Your task to perform on an android device: Search for the best rated 150-piece drill bit set on Aliexpress. Image 0: 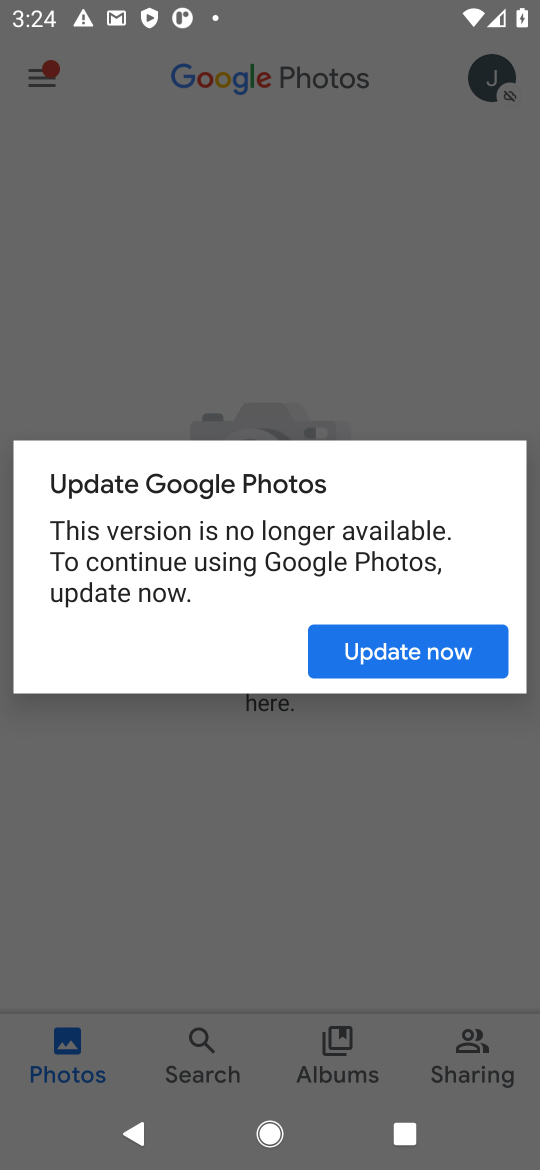
Step 0: press home button
Your task to perform on an android device: Search for the best rated 150-piece drill bit set on Aliexpress. Image 1: 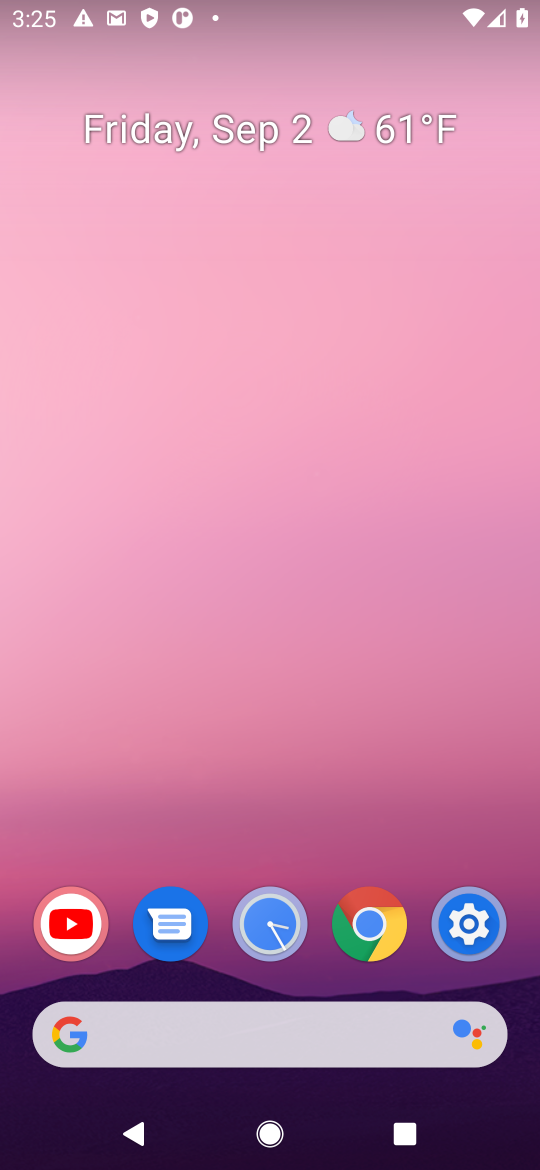
Step 1: click (382, 1047)
Your task to perform on an android device: Search for the best rated 150-piece drill bit set on Aliexpress. Image 2: 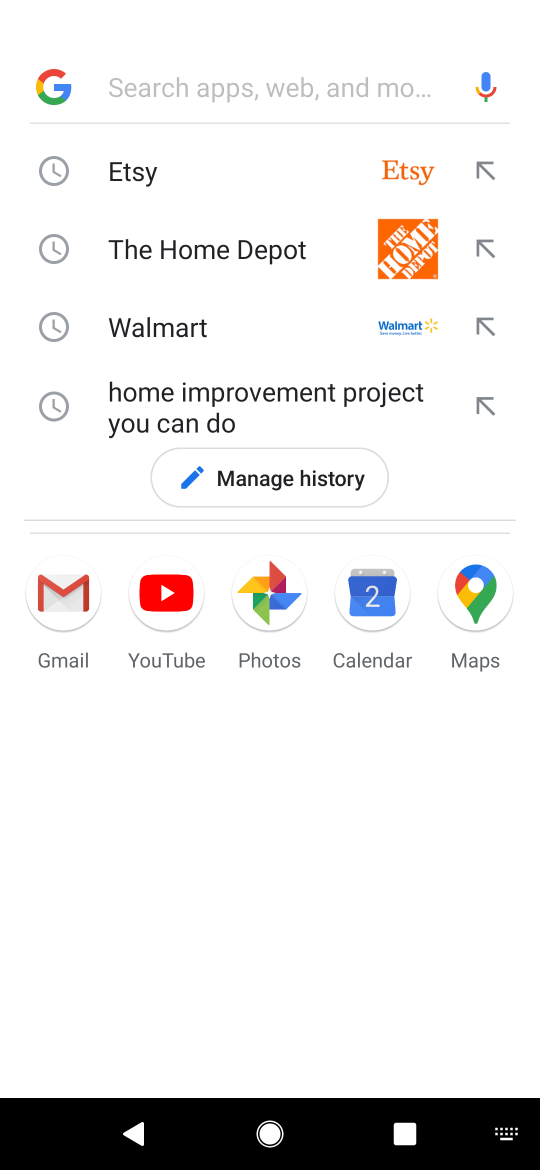
Step 2: press enter
Your task to perform on an android device: Search for the best rated 150-piece drill bit set on Aliexpress. Image 3: 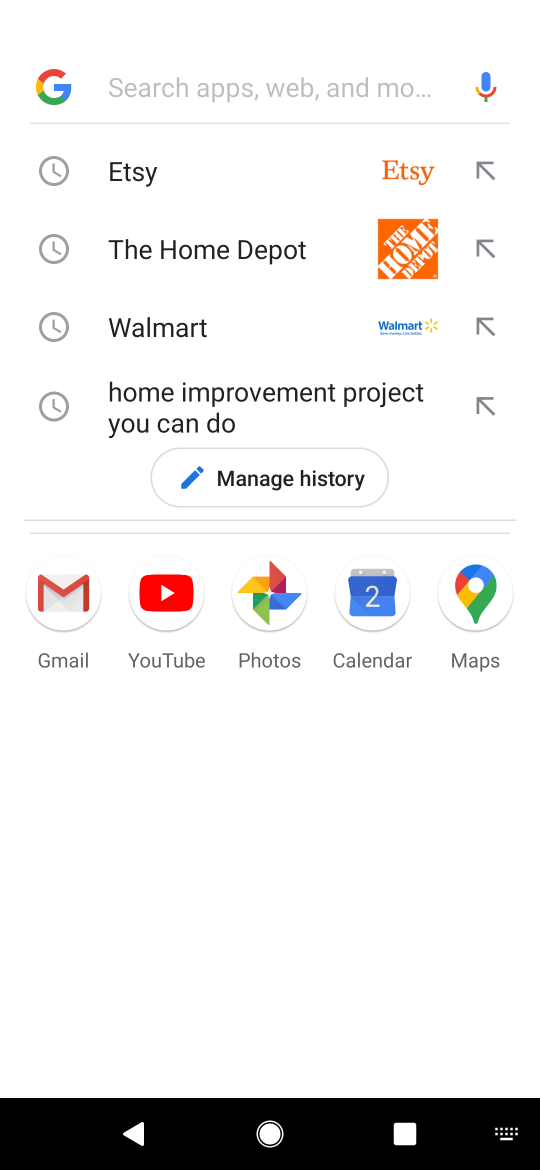
Step 3: type "aliexpress"
Your task to perform on an android device: Search for the best rated 150-piece drill bit set on Aliexpress. Image 4: 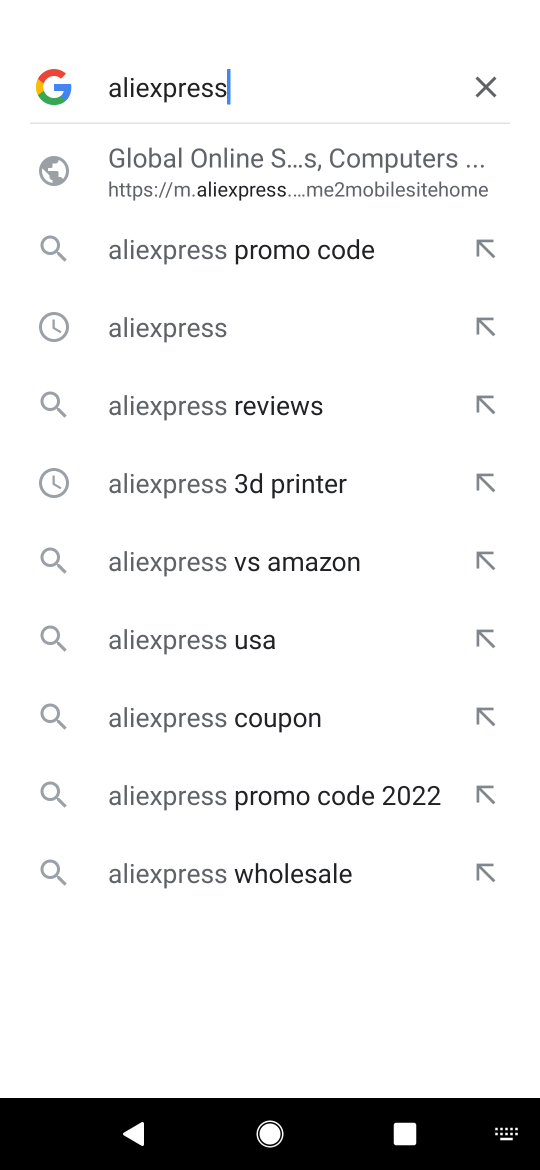
Step 4: click (266, 178)
Your task to perform on an android device: Search for the best rated 150-piece drill bit set on Aliexpress. Image 5: 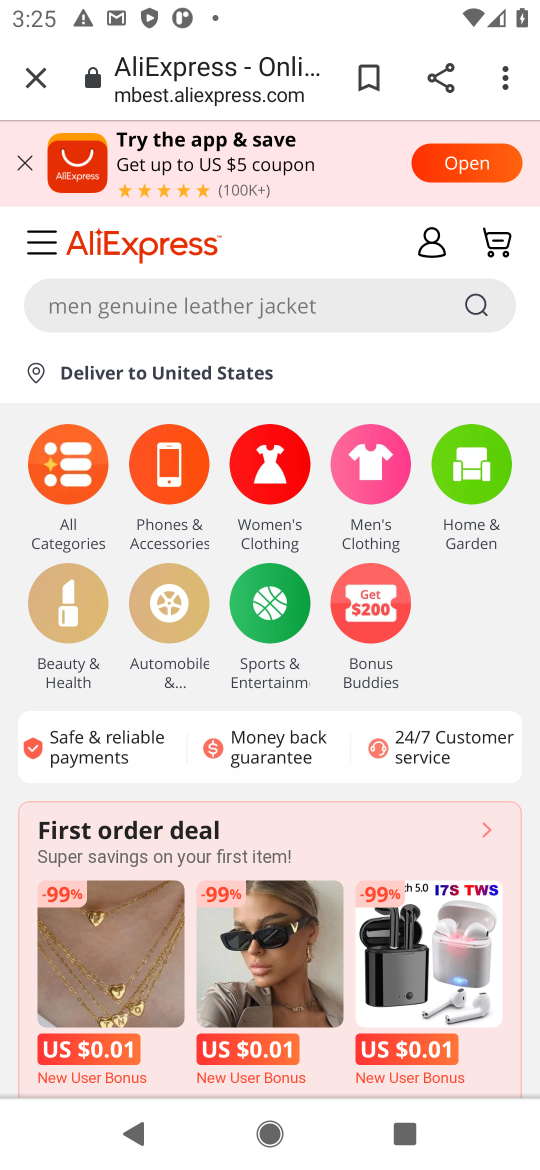
Step 5: click (282, 300)
Your task to perform on an android device: Search for the best rated 150-piece drill bit set on Aliexpress. Image 6: 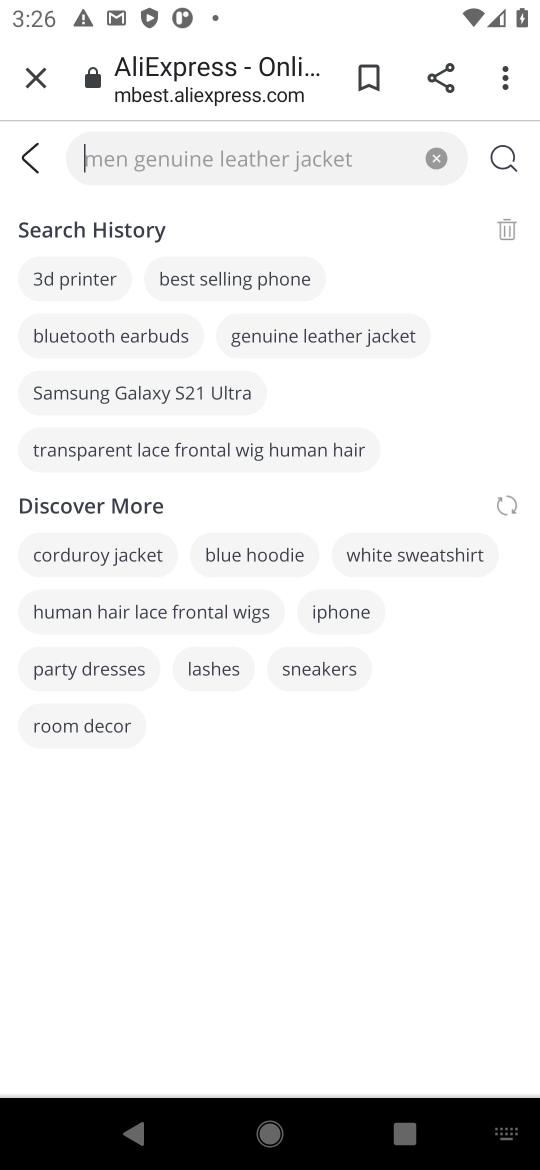
Step 6: type "best rated 150-piece drill bit set"
Your task to perform on an android device: Search for the best rated 150-piece drill bit set on Aliexpress. Image 7: 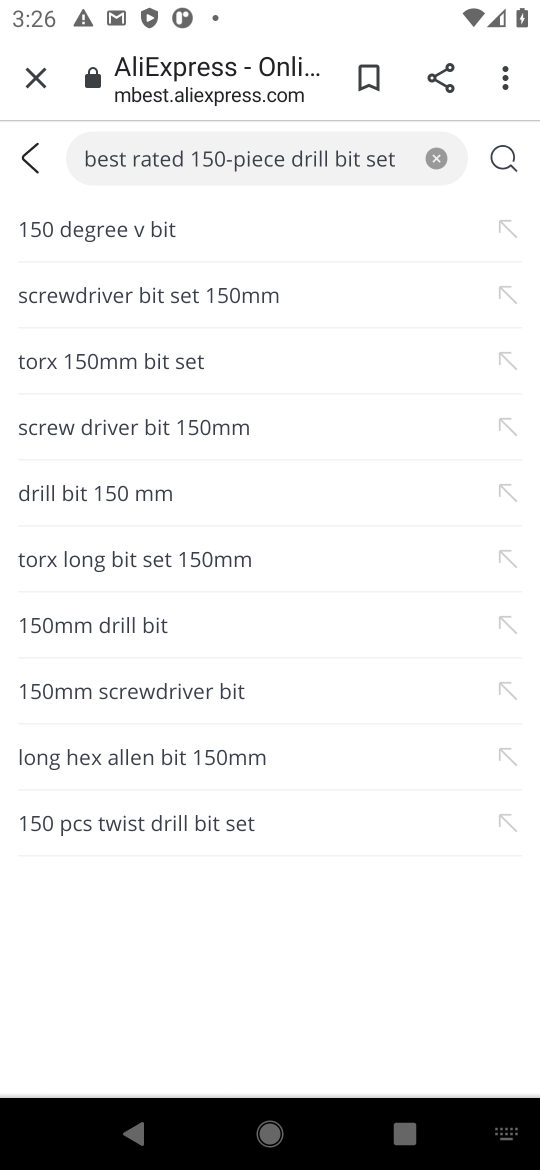
Step 7: click (169, 218)
Your task to perform on an android device: Search for the best rated 150-piece drill bit set on Aliexpress. Image 8: 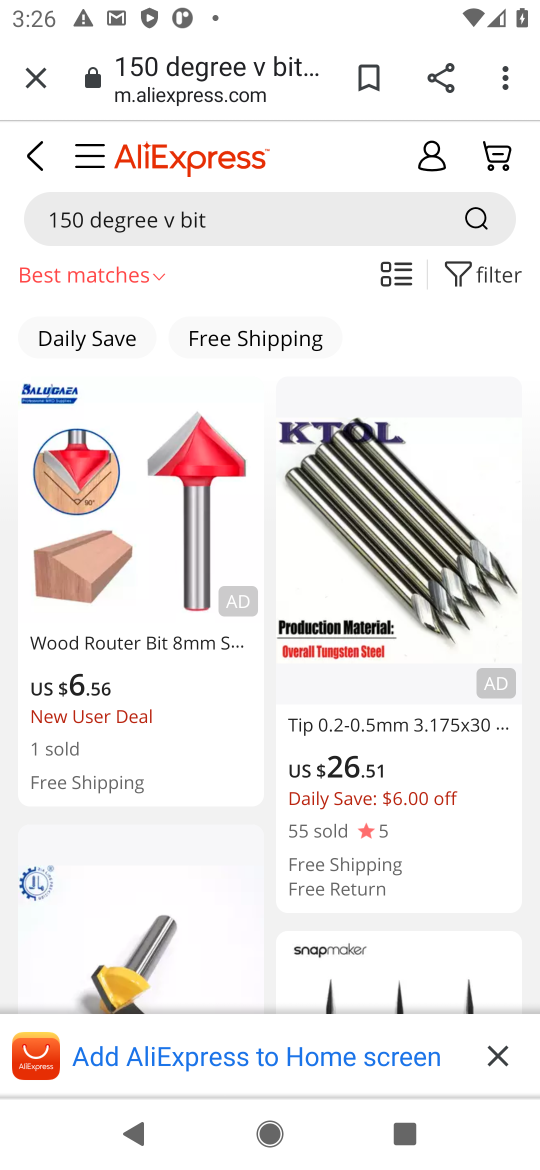
Step 8: task complete